Your task to perform on an android device: Do I have any events today? Image 0: 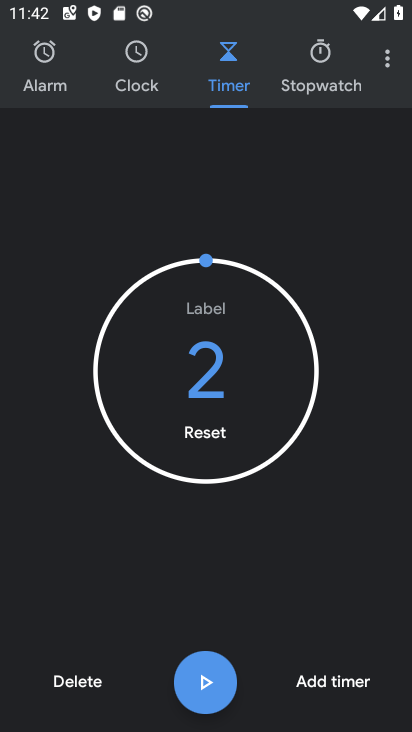
Step 0: press home button
Your task to perform on an android device: Do I have any events today? Image 1: 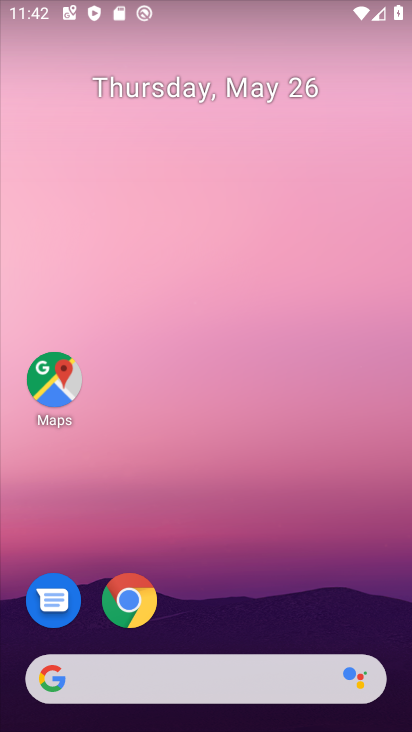
Step 1: click (127, 90)
Your task to perform on an android device: Do I have any events today? Image 2: 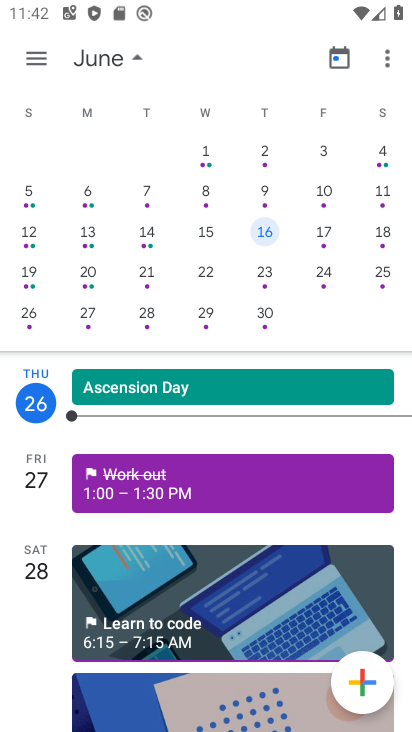
Step 2: task complete